Your task to perform on an android device: change the clock style Image 0: 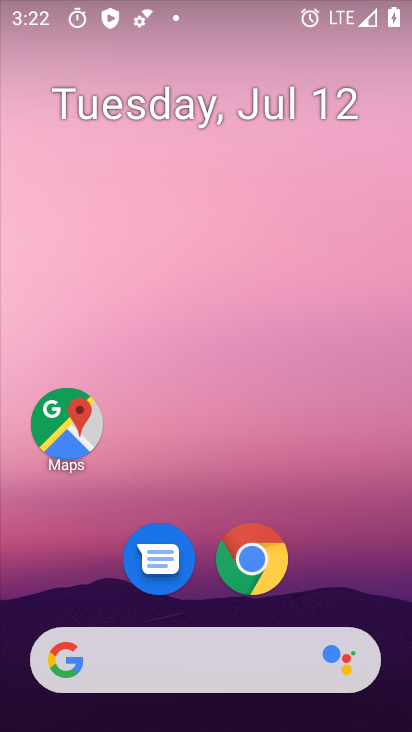
Step 0: drag from (371, 582) to (373, 195)
Your task to perform on an android device: change the clock style Image 1: 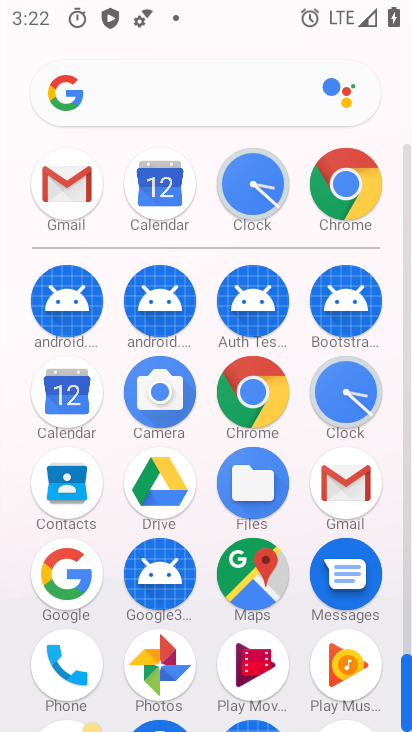
Step 1: click (348, 392)
Your task to perform on an android device: change the clock style Image 2: 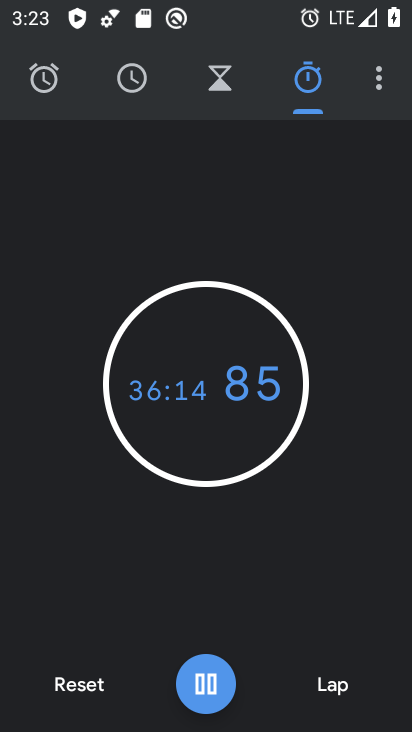
Step 2: click (380, 86)
Your task to perform on an android device: change the clock style Image 3: 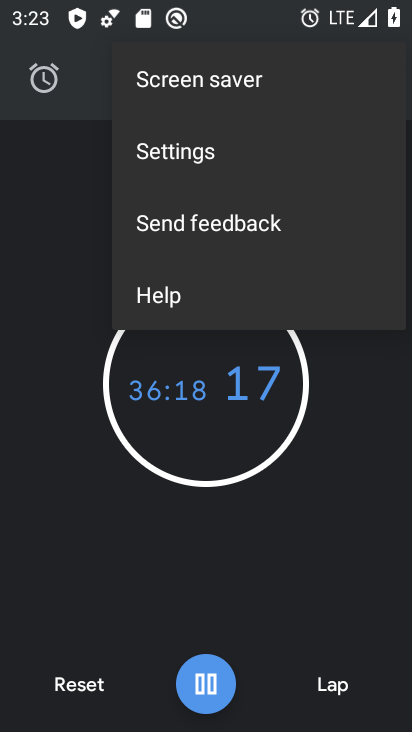
Step 3: click (305, 150)
Your task to perform on an android device: change the clock style Image 4: 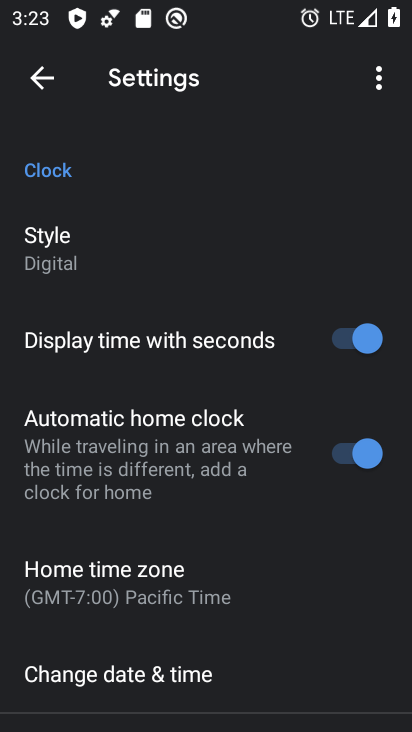
Step 4: drag from (301, 398) to (303, 321)
Your task to perform on an android device: change the clock style Image 5: 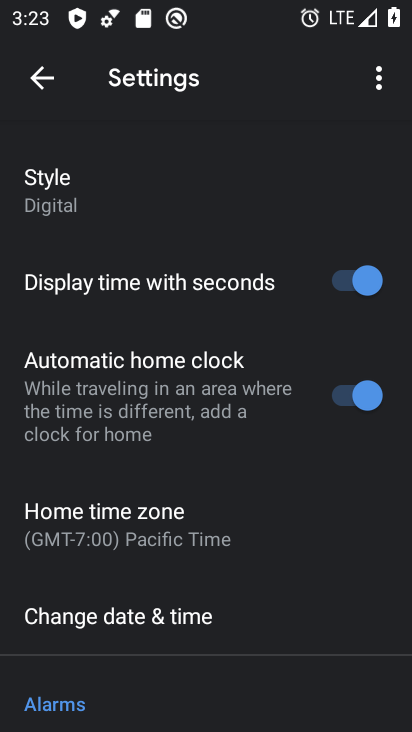
Step 5: drag from (290, 423) to (292, 357)
Your task to perform on an android device: change the clock style Image 6: 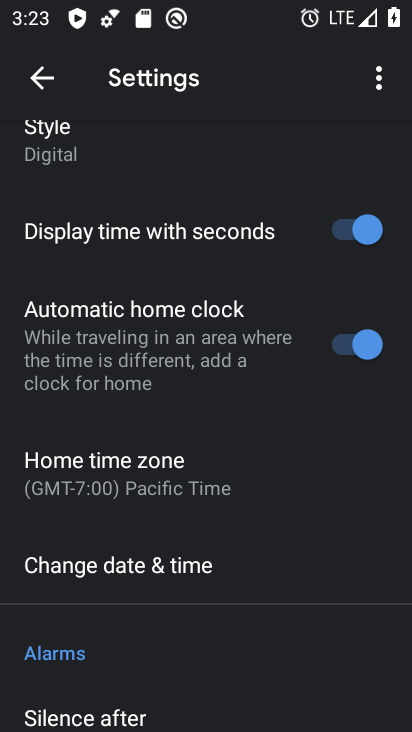
Step 6: drag from (289, 410) to (284, 356)
Your task to perform on an android device: change the clock style Image 7: 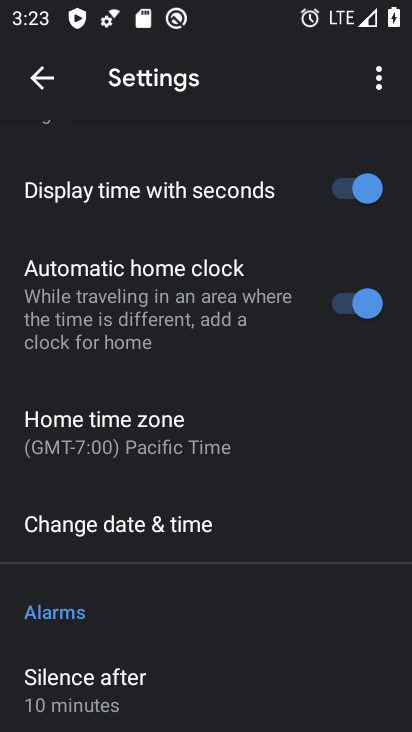
Step 7: drag from (292, 406) to (291, 340)
Your task to perform on an android device: change the clock style Image 8: 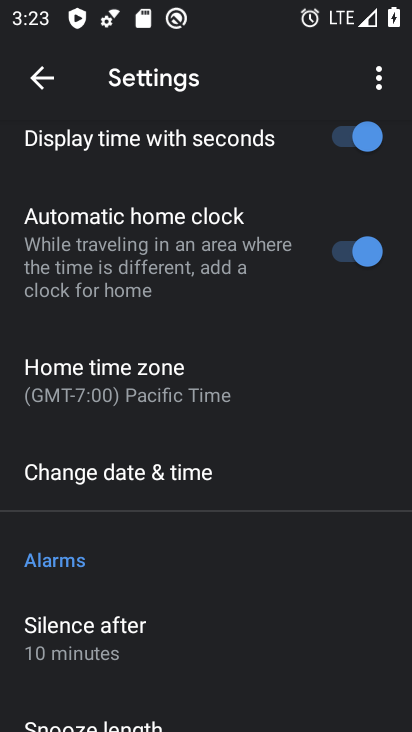
Step 8: drag from (309, 432) to (309, 367)
Your task to perform on an android device: change the clock style Image 9: 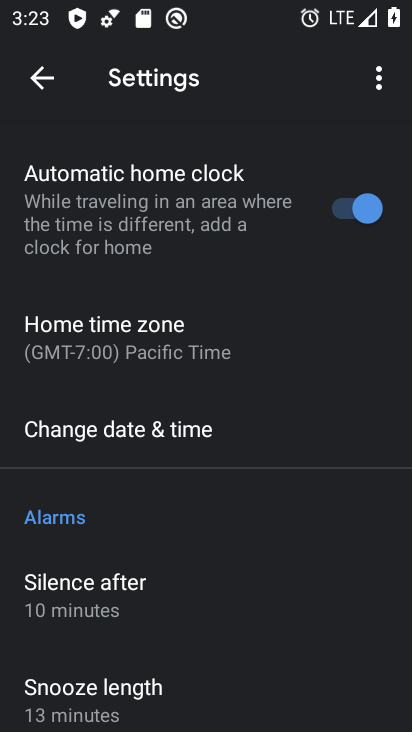
Step 9: drag from (311, 432) to (307, 358)
Your task to perform on an android device: change the clock style Image 10: 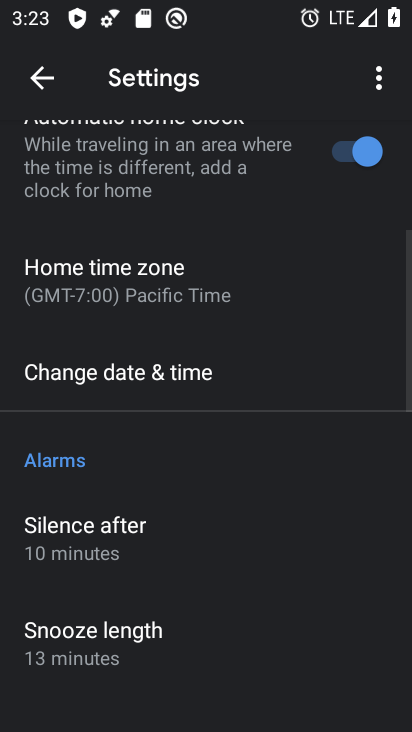
Step 10: drag from (312, 428) to (323, 345)
Your task to perform on an android device: change the clock style Image 11: 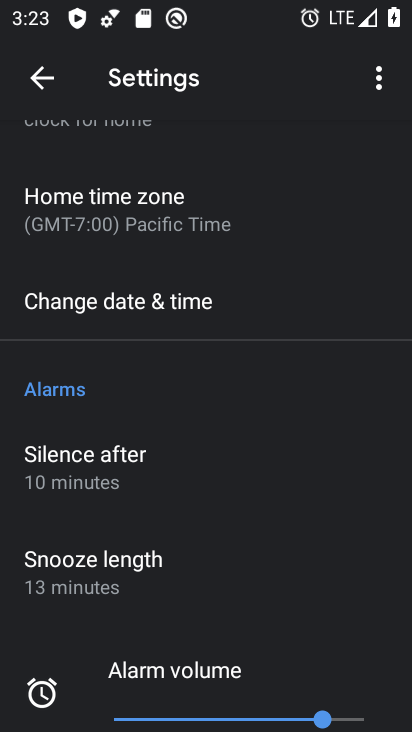
Step 11: drag from (315, 392) to (316, 316)
Your task to perform on an android device: change the clock style Image 12: 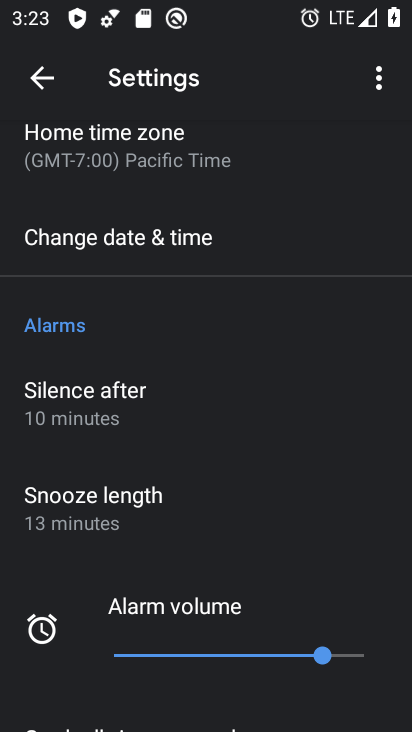
Step 12: drag from (317, 402) to (318, 327)
Your task to perform on an android device: change the clock style Image 13: 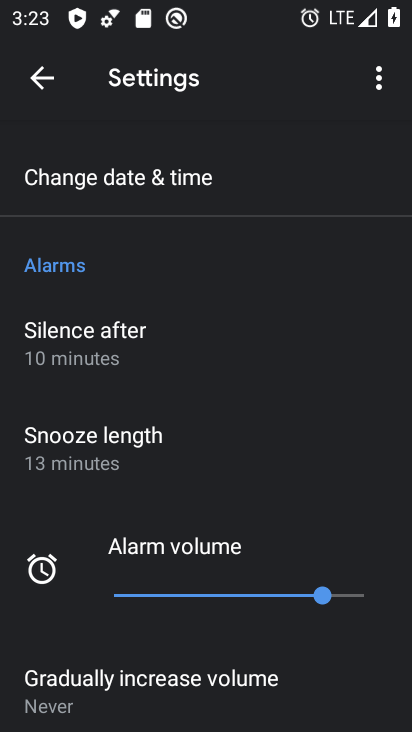
Step 13: drag from (320, 404) to (324, 335)
Your task to perform on an android device: change the clock style Image 14: 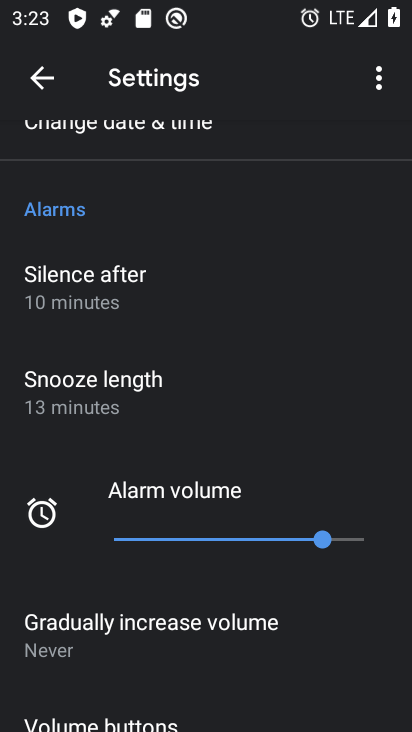
Step 14: drag from (327, 417) to (327, 343)
Your task to perform on an android device: change the clock style Image 15: 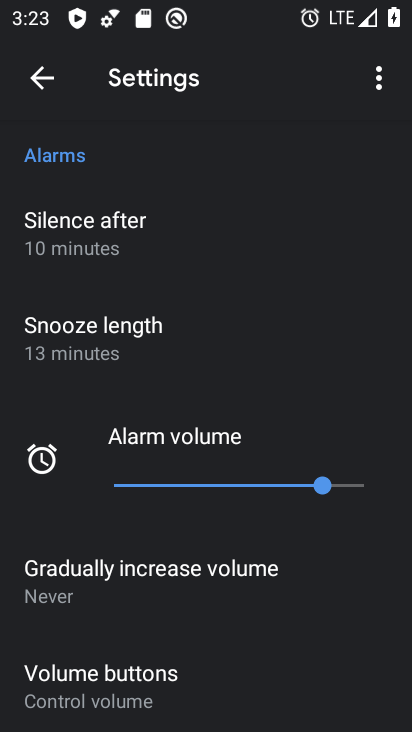
Step 15: drag from (342, 430) to (346, 327)
Your task to perform on an android device: change the clock style Image 16: 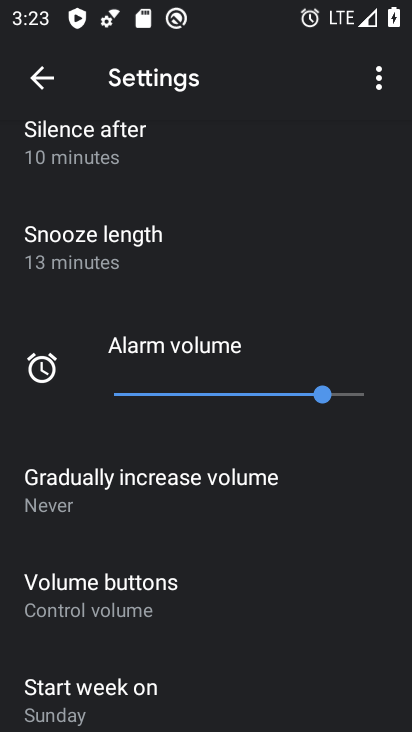
Step 16: drag from (349, 452) to (354, 352)
Your task to perform on an android device: change the clock style Image 17: 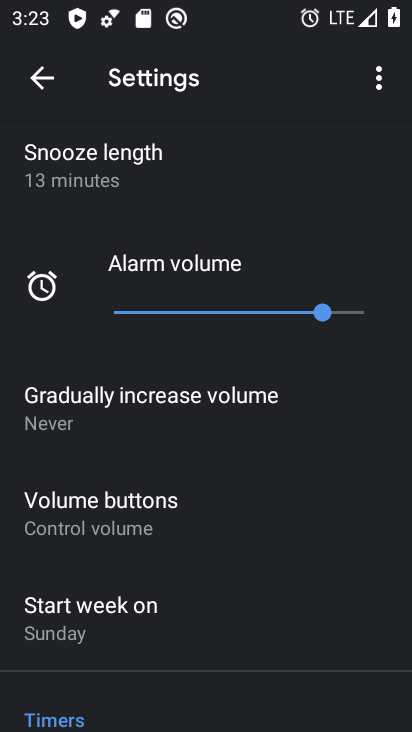
Step 17: drag from (344, 471) to (345, 331)
Your task to perform on an android device: change the clock style Image 18: 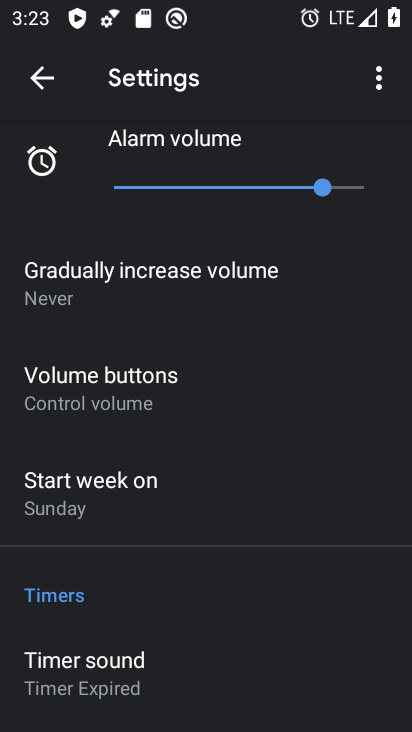
Step 18: drag from (344, 329) to (330, 422)
Your task to perform on an android device: change the clock style Image 19: 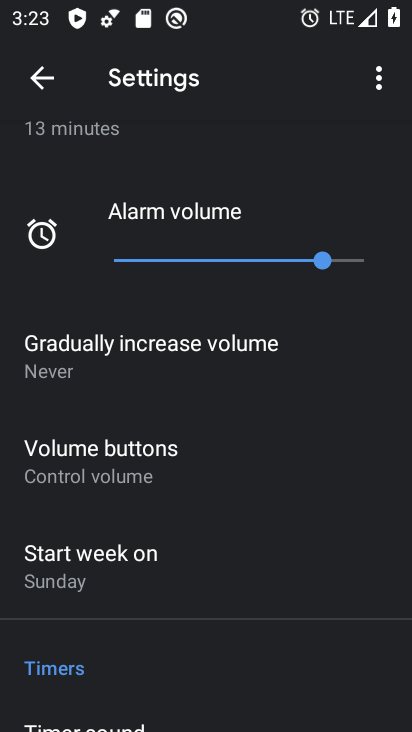
Step 19: drag from (344, 313) to (346, 411)
Your task to perform on an android device: change the clock style Image 20: 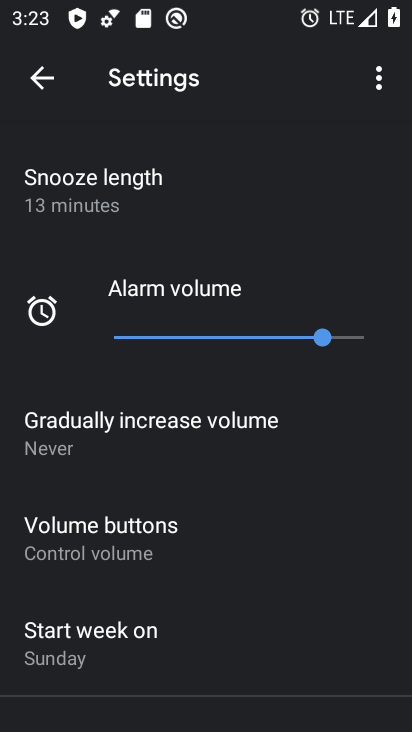
Step 20: drag from (350, 297) to (351, 392)
Your task to perform on an android device: change the clock style Image 21: 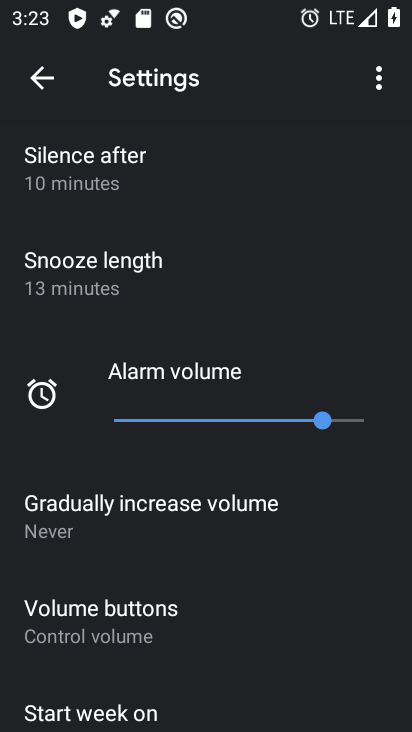
Step 21: drag from (355, 260) to (353, 365)
Your task to perform on an android device: change the clock style Image 22: 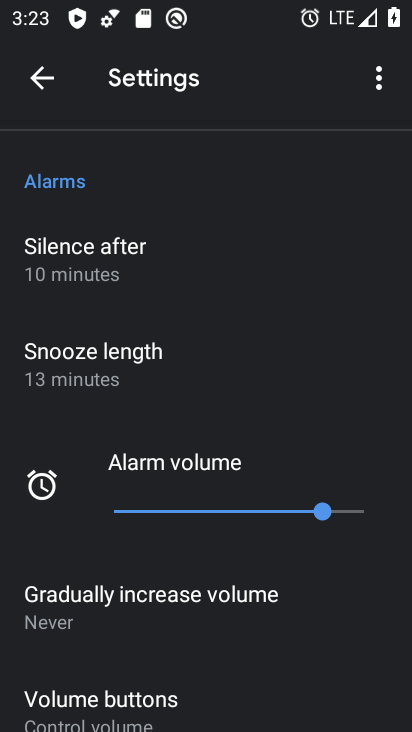
Step 22: drag from (357, 262) to (344, 372)
Your task to perform on an android device: change the clock style Image 23: 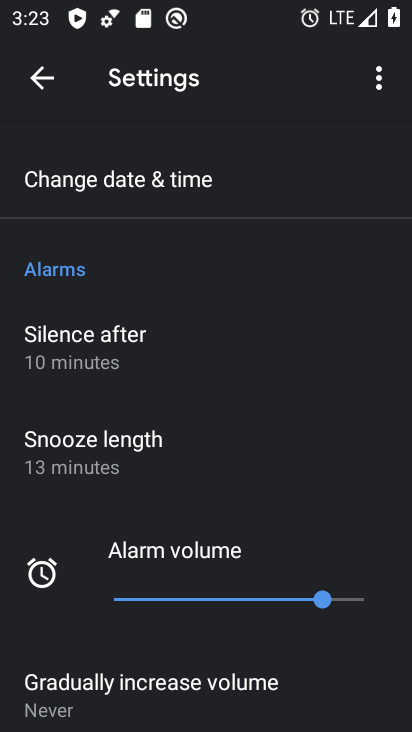
Step 23: drag from (345, 270) to (344, 372)
Your task to perform on an android device: change the clock style Image 24: 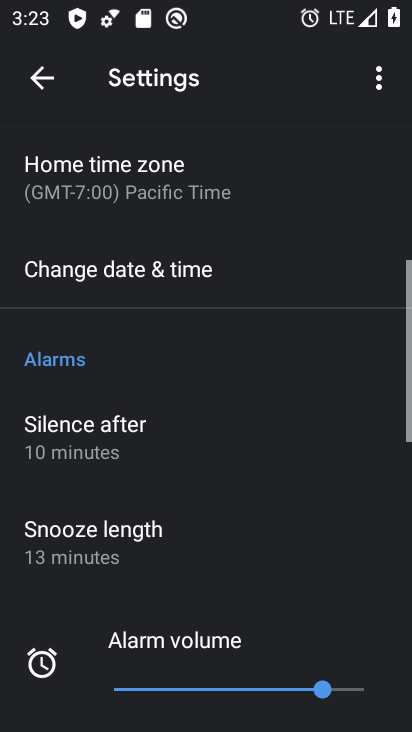
Step 24: drag from (343, 252) to (344, 367)
Your task to perform on an android device: change the clock style Image 25: 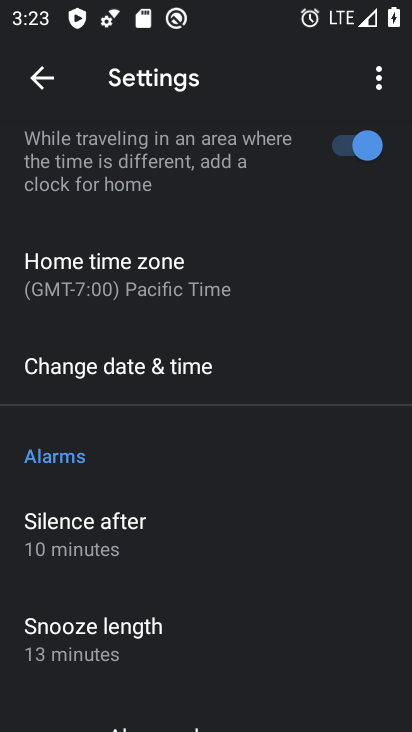
Step 25: drag from (343, 233) to (332, 350)
Your task to perform on an android device: change the clock style Image 26: 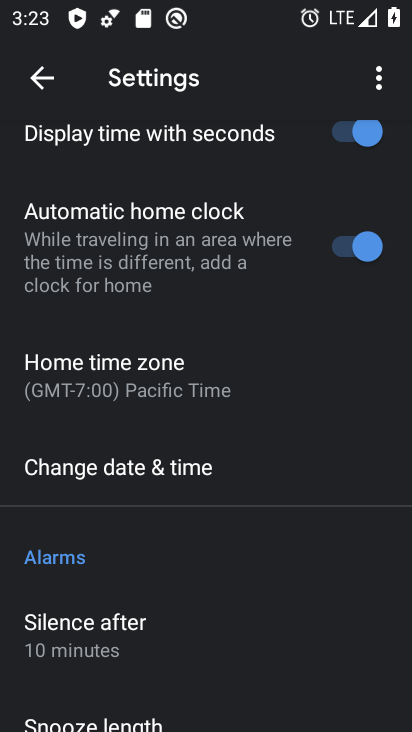
Step 26: drag from (318, 178) to (291, 391)
Your task to perform on an android device: change the clock style Image 27: 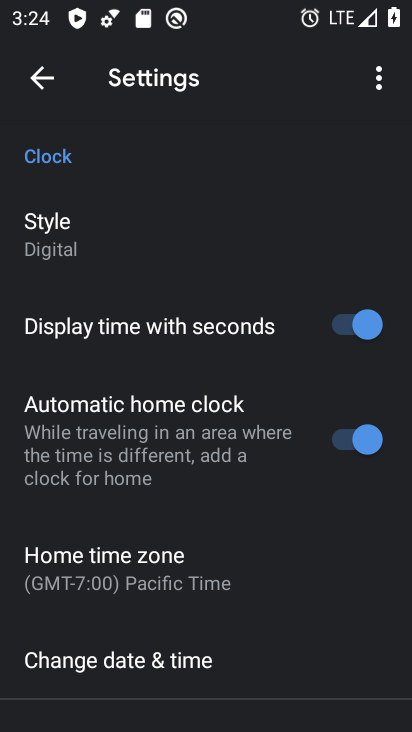
Step 27: click (68, 243)
Your task to perform on an android device: change the clock style Image 28: 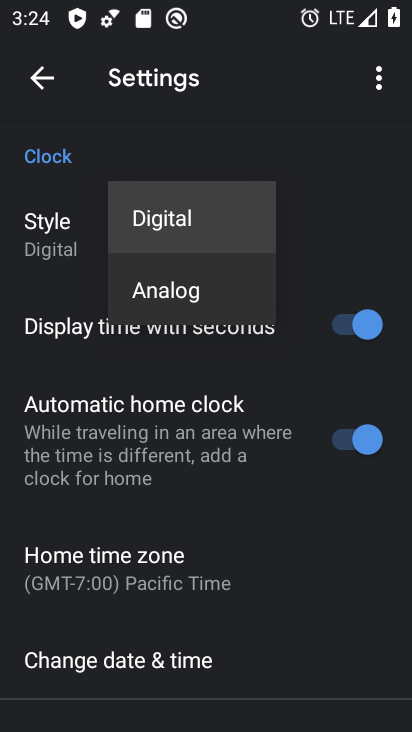
Step 28: click (161, 303)
Your task to perform on an android device: change the clock style Image 29: 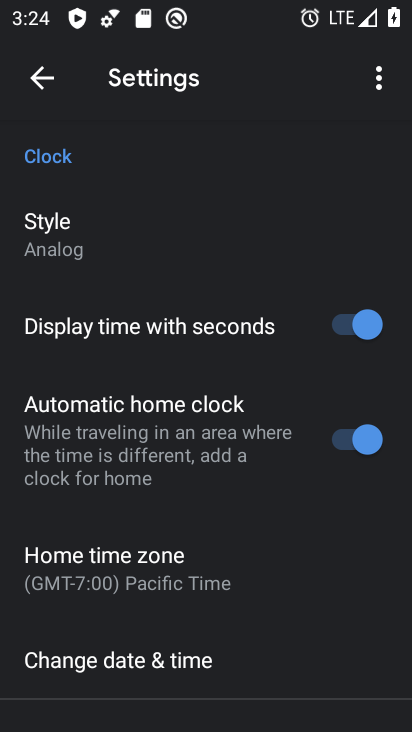
Step 29: task complete